Your task to perform on an android device: choose inbox layout in the gmail app Image 0: 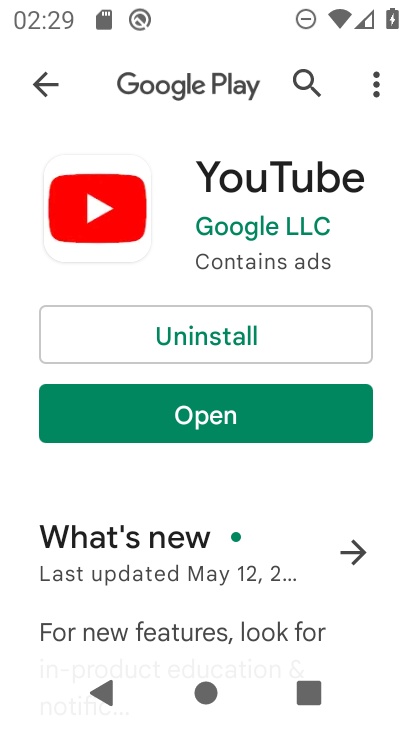
Step 0: type "reddit.com"
Your task to perform on an android device: choose inbox layout in the gmail app Image 1: 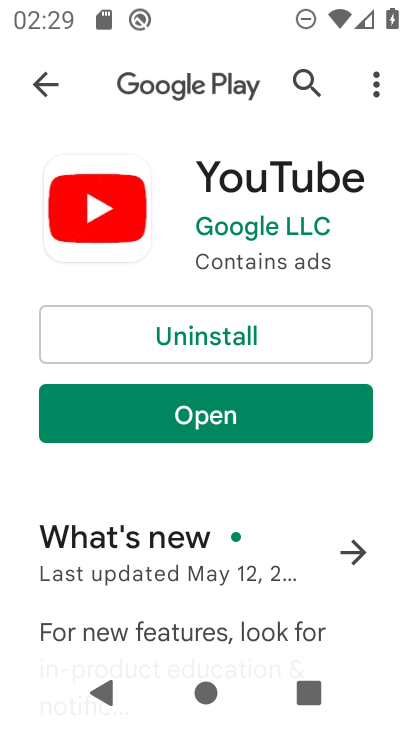
Step 1: task complete